Your task to perform on an android device: Go to Reddit.com Image 0: 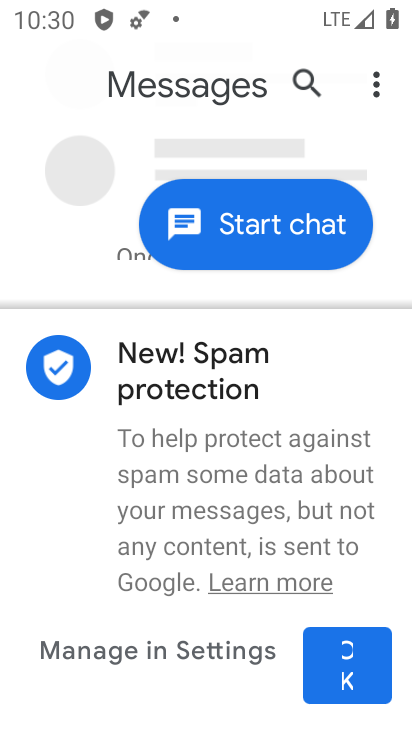
Step 0: press home button
Your task to perform on an android device: Go to Reddit.com Image 1: 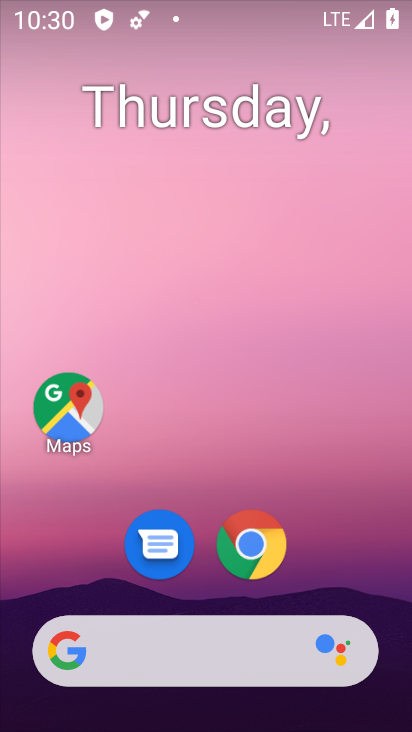
Step 1: drag from (316, 571) to (121, 168)
Your task to perform on an android device: Go to Reddit.com Image 2: 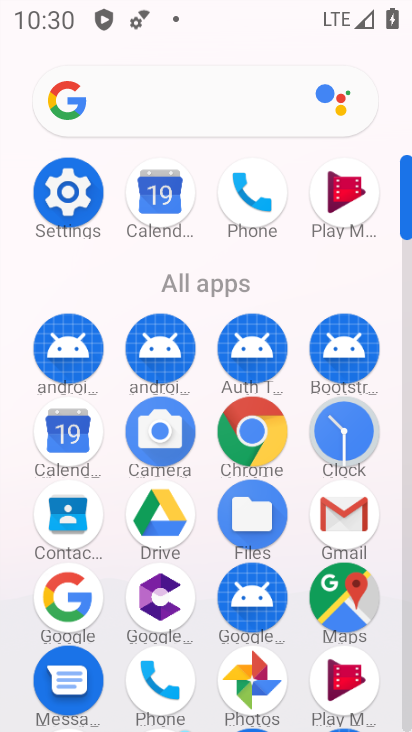
Step 2: click (267, 452)
Your task to perform on an android device: Go to Reddit.com Image 3: 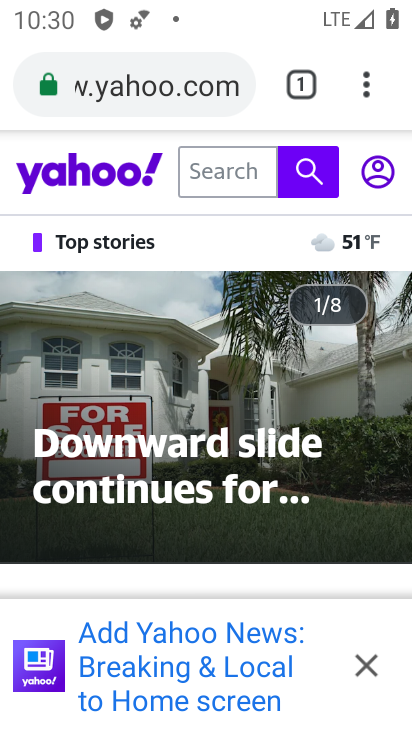
Step 3: click (296, 80)
Your task to perform on an android device: Go to Reddit.com Image 4: 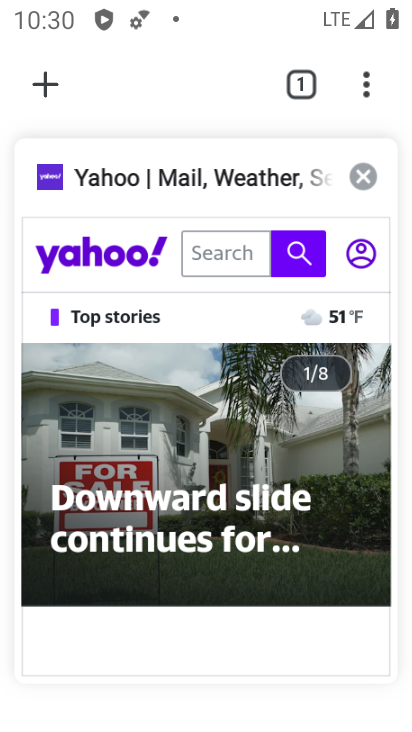
Step 4: click (52, 77)
Your task to perform on an android device: Go to Reddit.com Image 5: 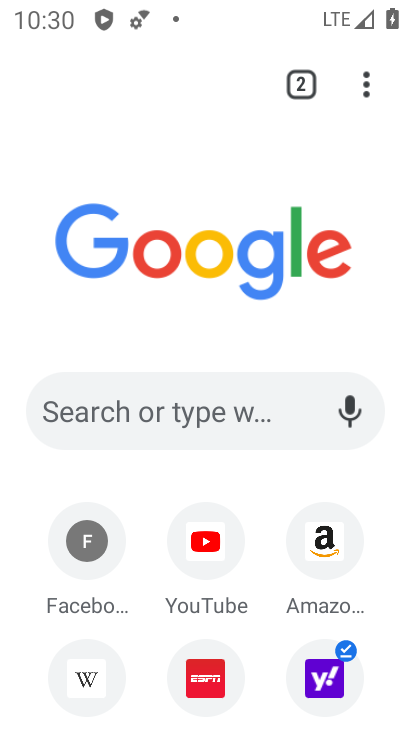
Step 5: click (159, 391)
Your task to perform on an android device: Go to Reddit.com Image 6: 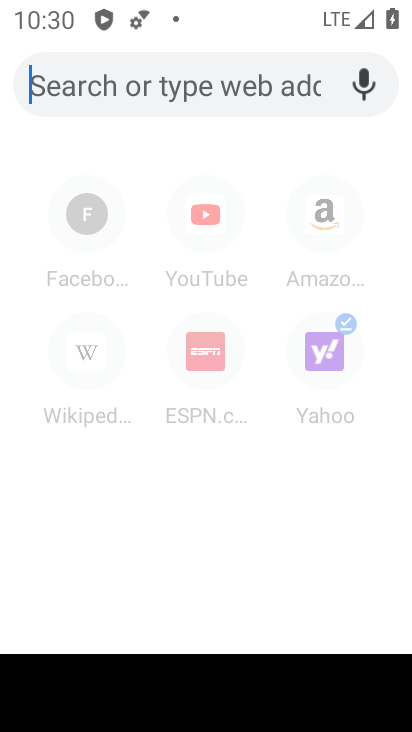
Step 6: type "reddit.com"
Your task to perform on an android device: Go to Reddit.com Image 7: 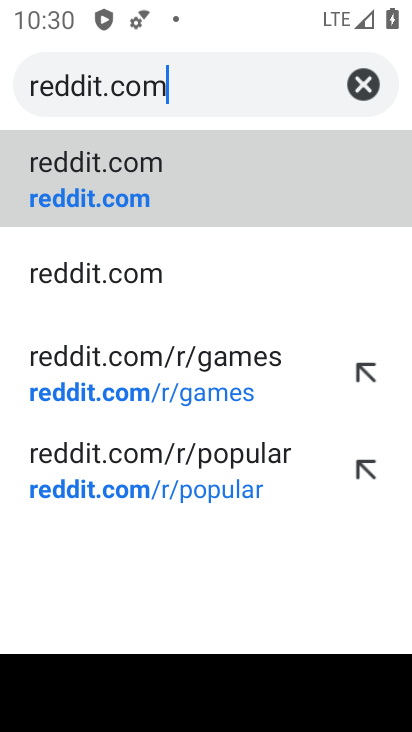
Step 7: click (46, 163)
Your task to perform on an android device: Go to Reddit.com Image 8: 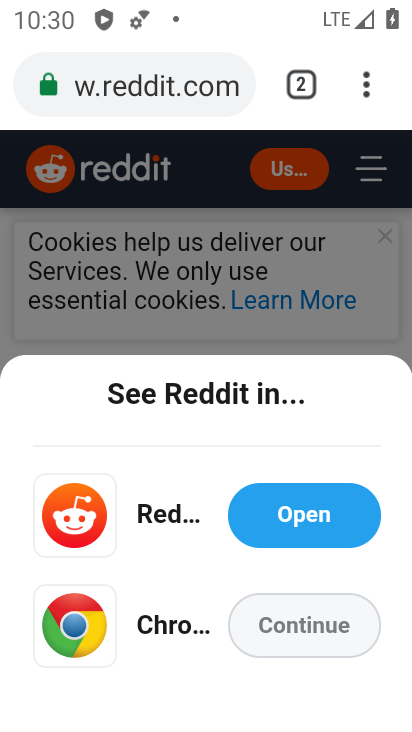
Step 8: click (321, 636)
Your task to perform on an android device: Go to Reddit.com Image 9: 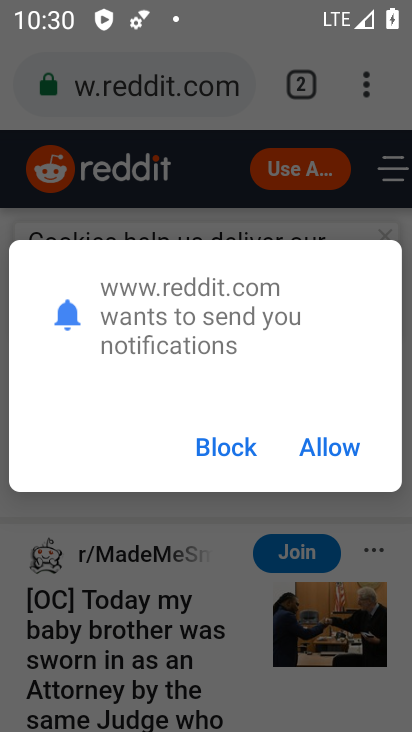
Step 9: click (316, 439)
Your task to perform on an android device: Go to Reddit.com Image 10: 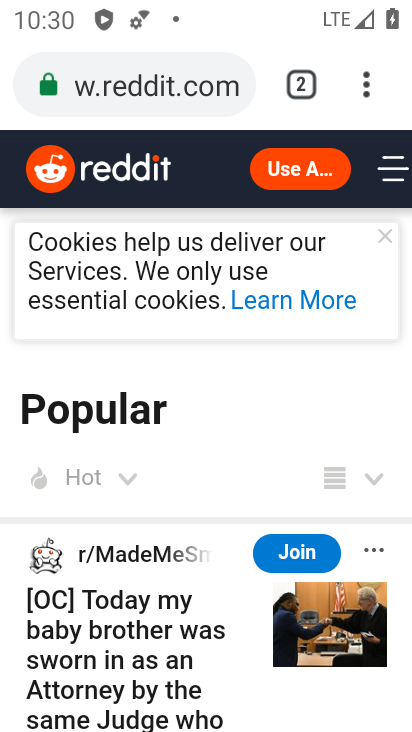
Step 10: task complete